Your task to perform on an android device: allow cookies in the chrome app Image 0: 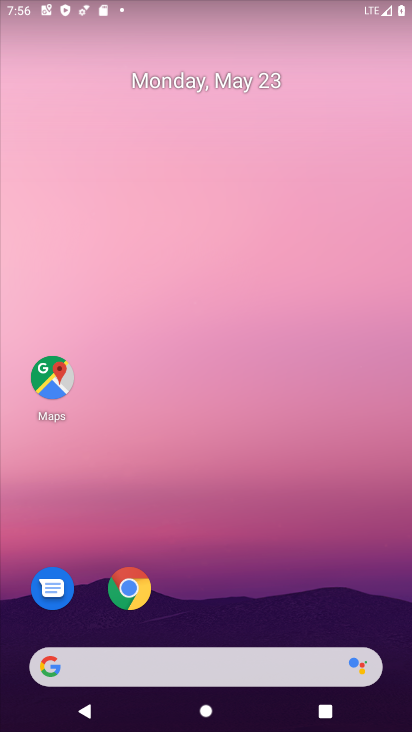
Step 0: click (129, 584)
Your task to perform on an android device: allow cookies in the chrome app Image 1: 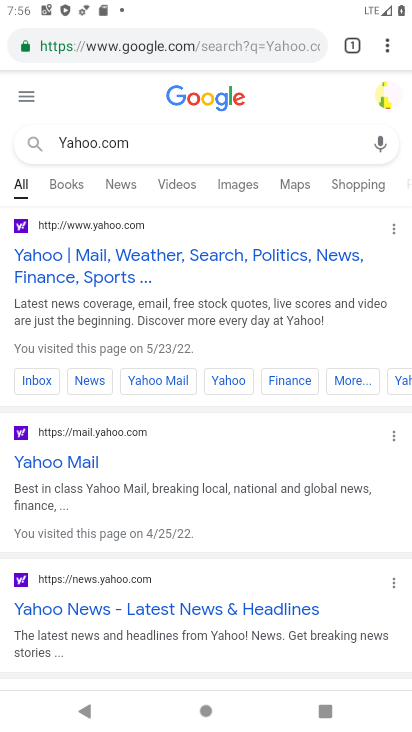
Step 1: click (381, 43)
Your task to perform on an android device: allow cookies in the chrome app Image 2: 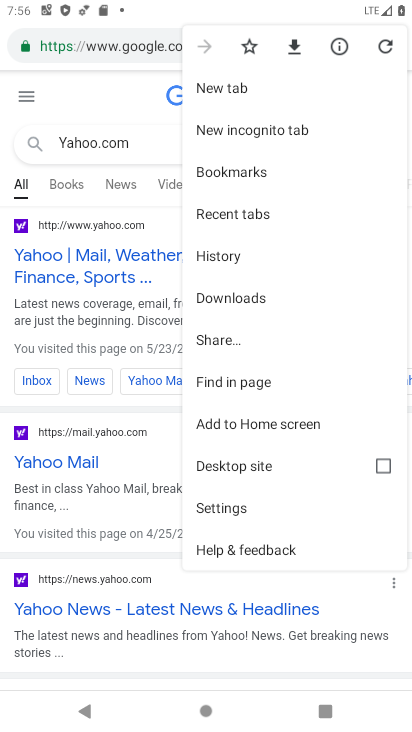
Step 2: drag from (319, 532) to (318, 204)
Your task to perform on an android device: allow cookies in the chrome app Image 3: 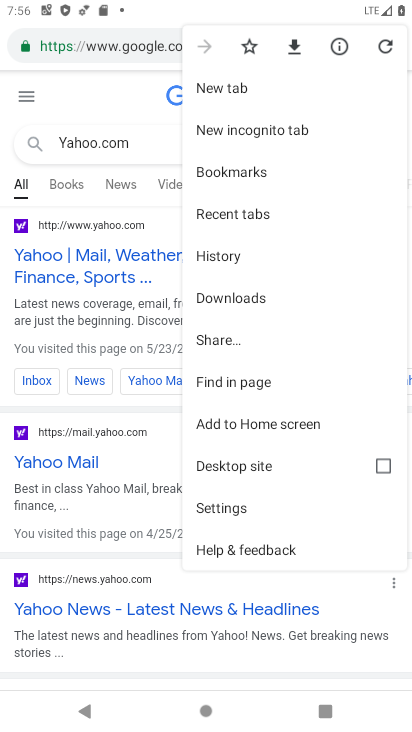
Step 3: click (218, 496)
Your task to perform on an android device: allow cookies in the chrome app Image 4: 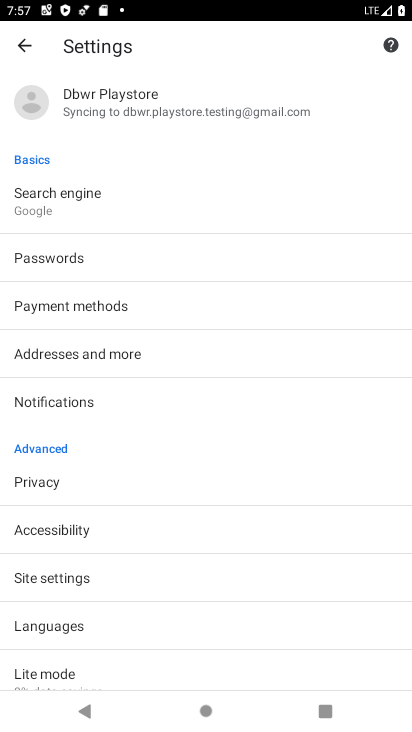
Step 4: click (56, 577)
Your task to perform on an android device: allow cookies in the chrome app Image 5: 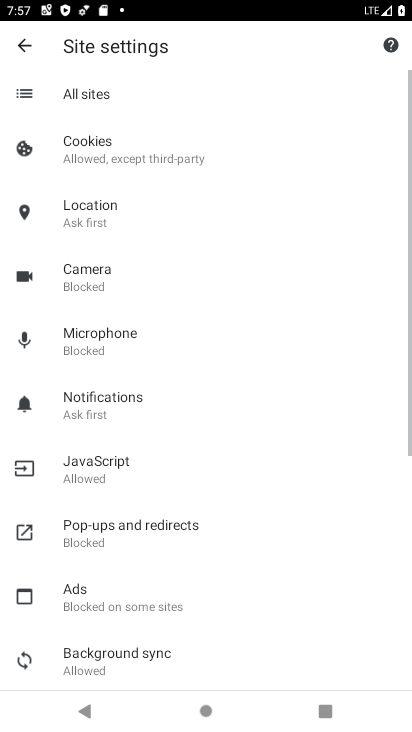
Step 5: click (132, 141)
Your task to perform on an android device: allow cookies in the chrome app Image 6: 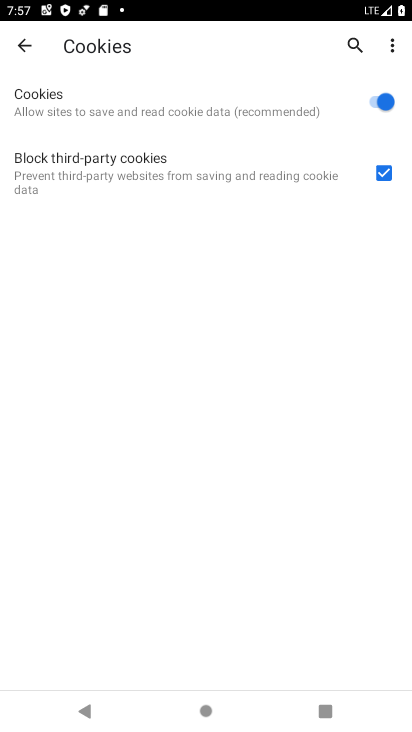
Step 6: task complete